Your task to perform on an android device: toggle improve location accuracy Image 0: 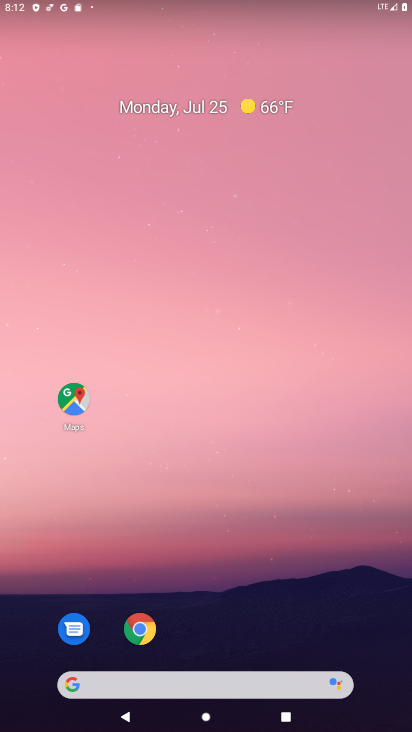
Step 0: press home button
Your task to perform on an android device: toggle improve location accuracy Image 1: 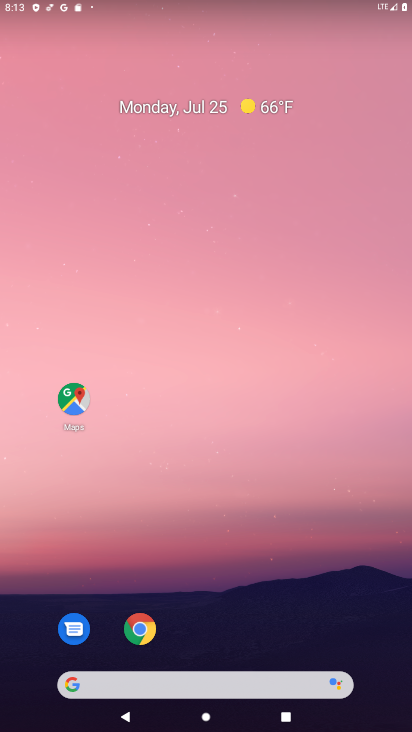
Step 1: drag from (251, 299) to (268, 3)
Your task to perform on an android device: toggle improve location accuracy Image 2: 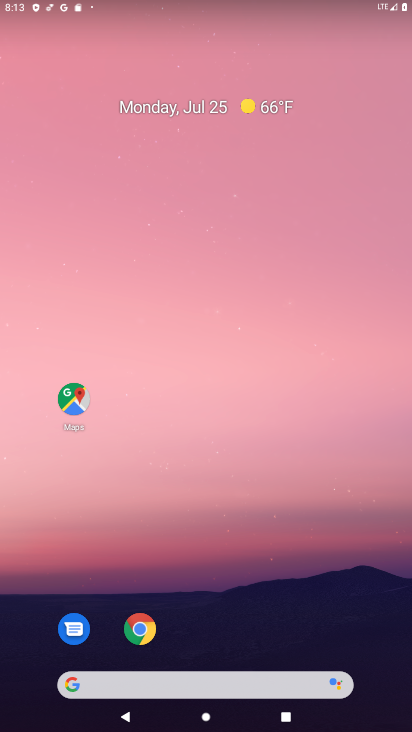
Step 2: drag from (201, 649) to (261, 15)
Your task to perform on an android device: toggle improve location accuracy Image 3: 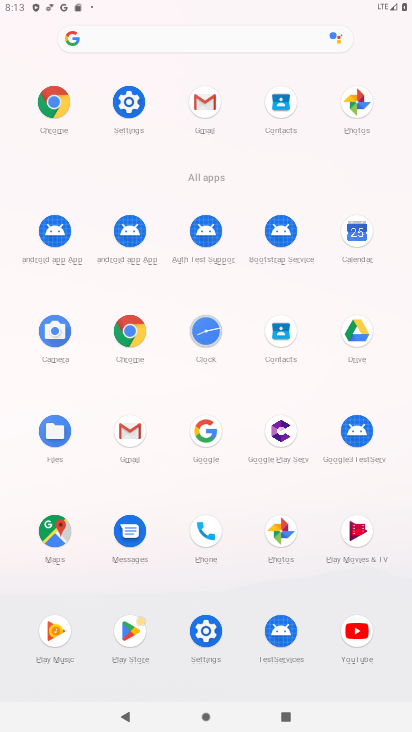
Step 3: click (205, 627)
Your task to perform on an android device: toggle improve location accuracy Image 4: 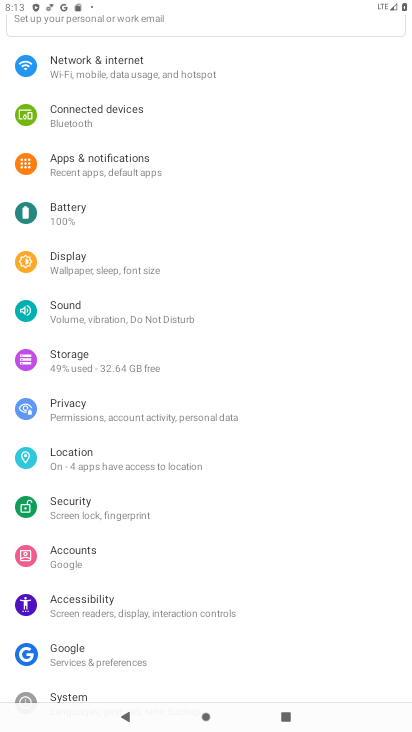
Step 4: click (110, 449)
Your task to perform on an android device: toggle improve location accuracy Image 5: 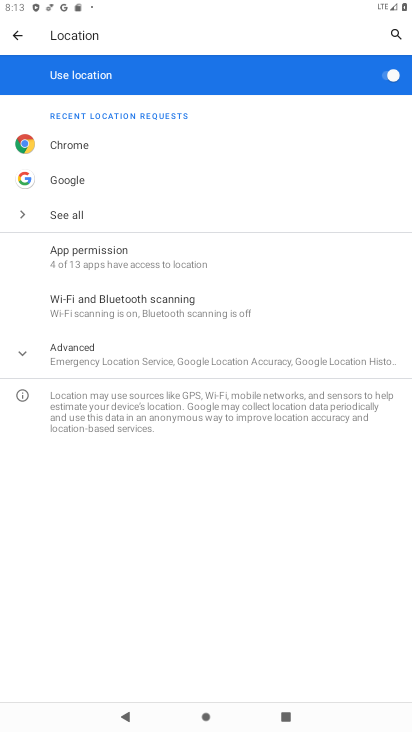
Step 5: click (16, 348)
Your task to perform on an android device: toggle improve location accuracy Image 6: 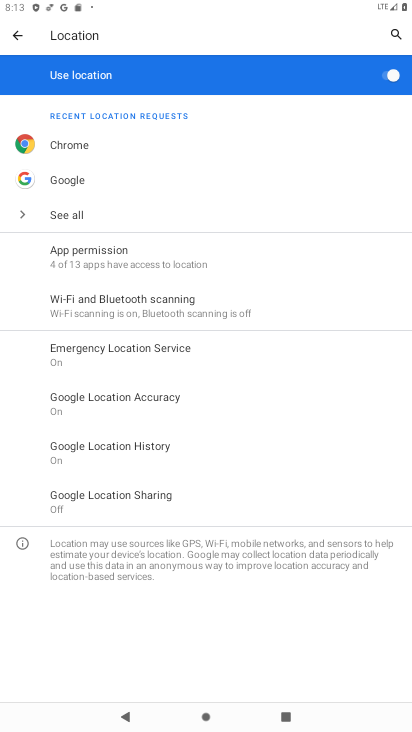
Step 6: click (87, 404)
Your task to perform on an android device: toggle improve location accuracy Image 7: 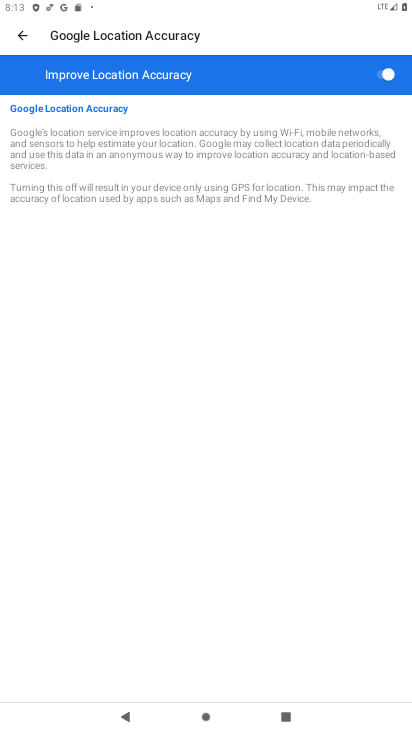
Step 7: click (376, 73)
Your task to perform on an android device: toggle improve location accuracy Image 8: 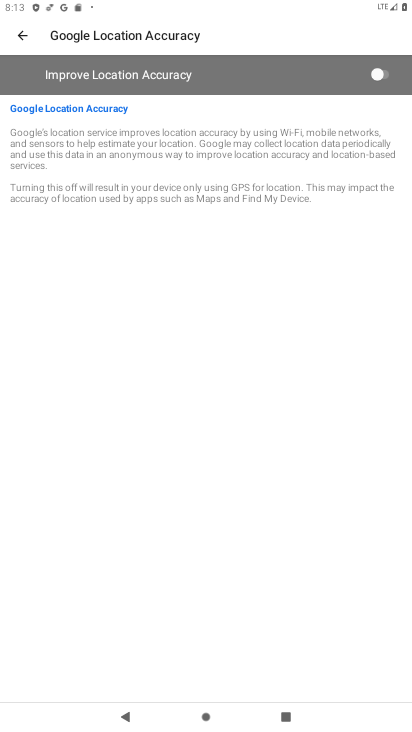
Step 8: task complete